Your task to perform on an android device: toggle location history Image 0: 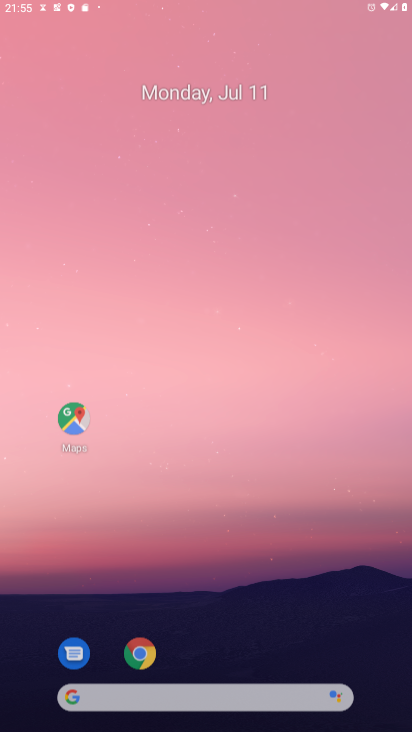
Step 0: drag from (289, 445) to (344, 10)
Your task to perform on an android device: toggle location history Image 1: 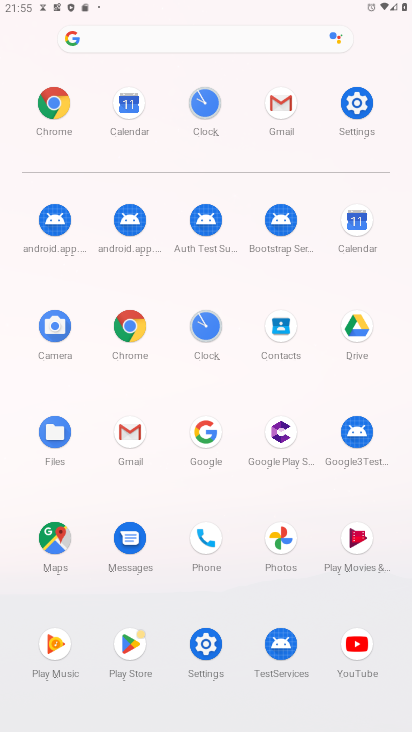
Step 1: click (355, 98)
Your task to perform on an android device: toggle location history Image 2: 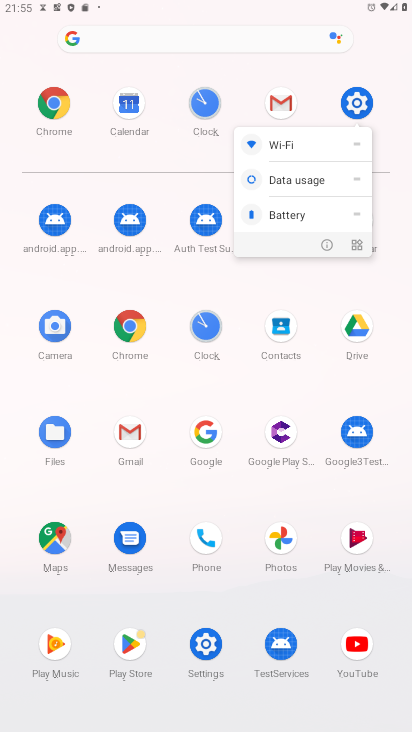
Step 2: click (324, 239)
Your task to perform on an android device: toggle location history Image 3: 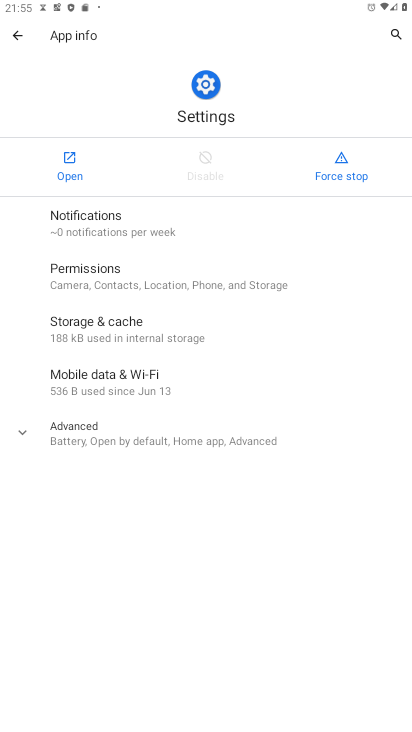
Step 3: click (76, 161)
Your task to perform on an android device: toggle location history Image 4: 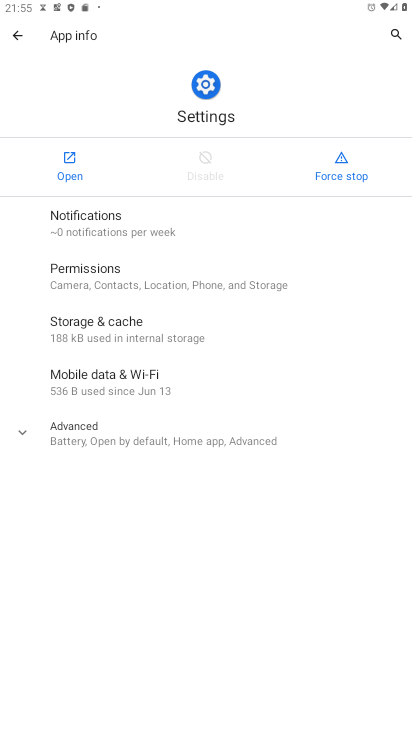
Step 4: click (76, 161)
Your task to perform on an android device: toggle location history Image 5: 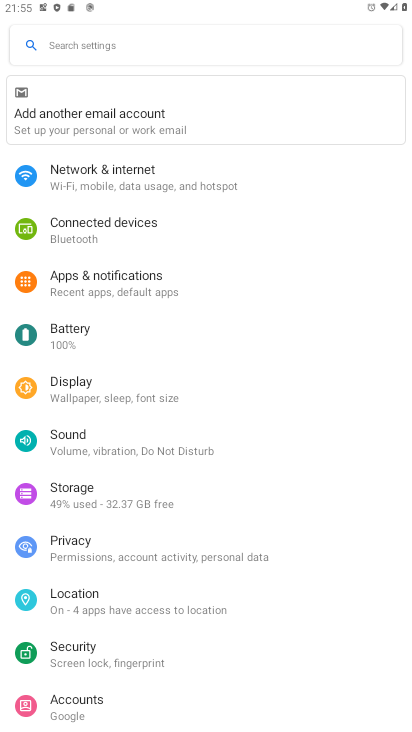
Step 5: click (128, 598)
Your task to perform on an android device: toggle location history Image 6: 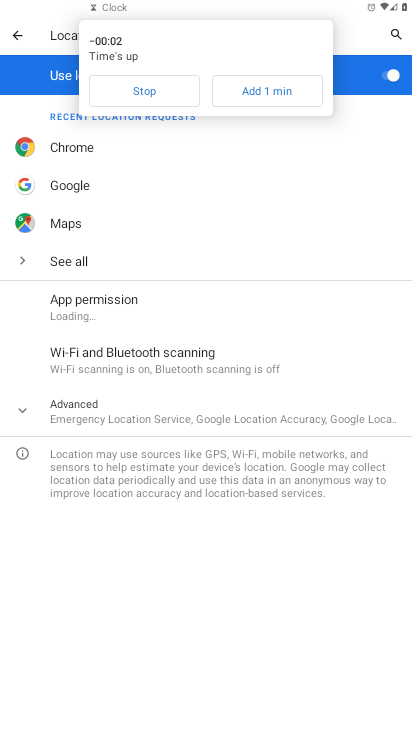
Step 6: click (152, 90)
Your task to perform on an android device: toggle location history Image 7: 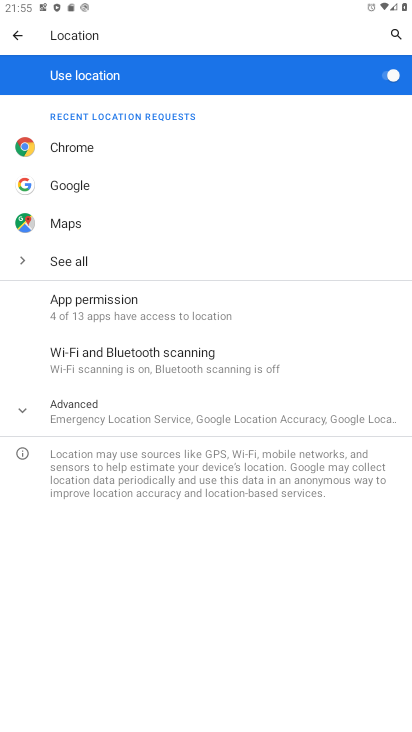
Step 7: click (132, 403)
Your task to perform on an android device: toggle location history Image 8: 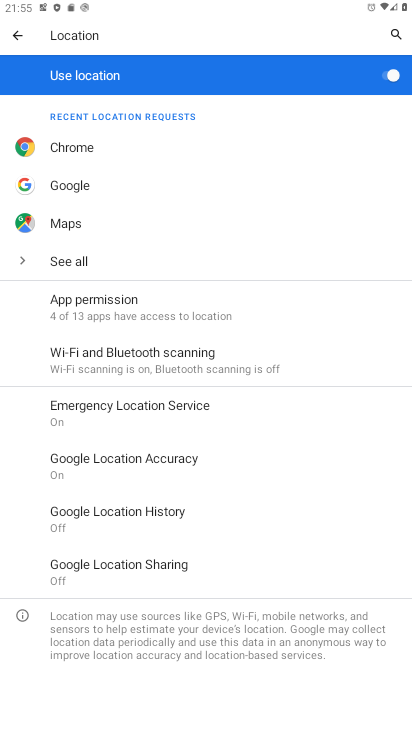
Step 8: click (129, 521)
Your task to perform on an android device: toggle location history Image 9: 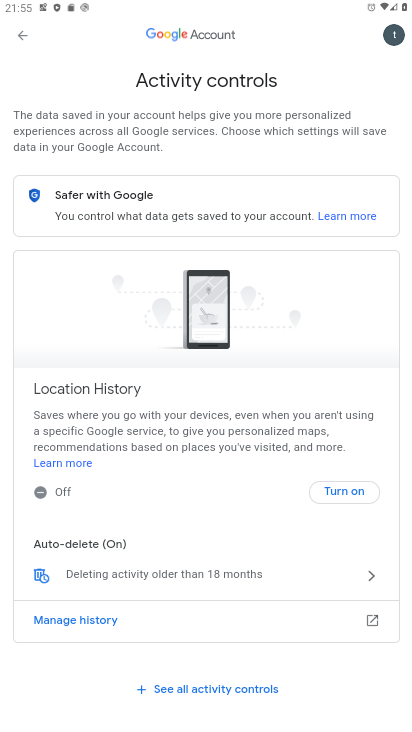
Step 9: click (355, 492)
Your task to perform on an android device: toggle location history Image 10: 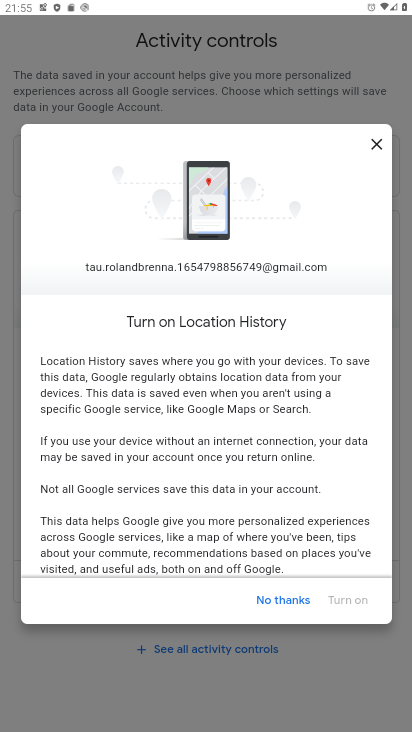
Step 10: drag from (213, 512) to (295, 163)
Your task to perform on an android device: toggle location history Image 11: 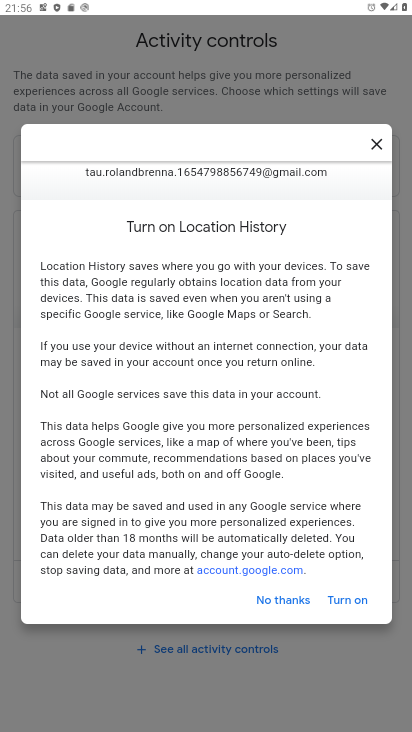
Step 11: click (344, 597)
Your task to perform on an android device: toggle location history Image 12: 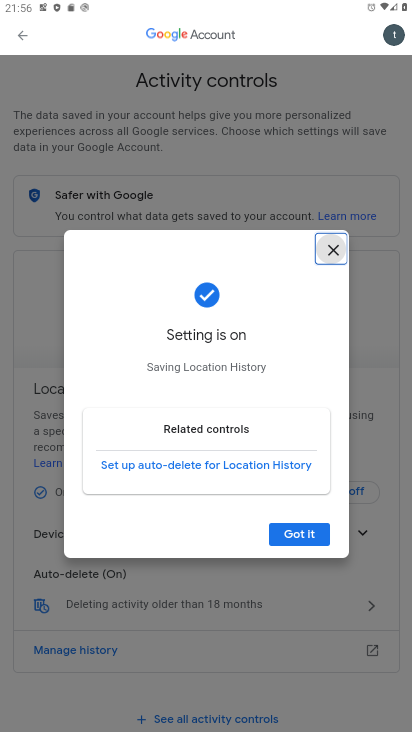
Step 12: click (300, 535)
Your task to perform on an android device: toggle location history Image 13: 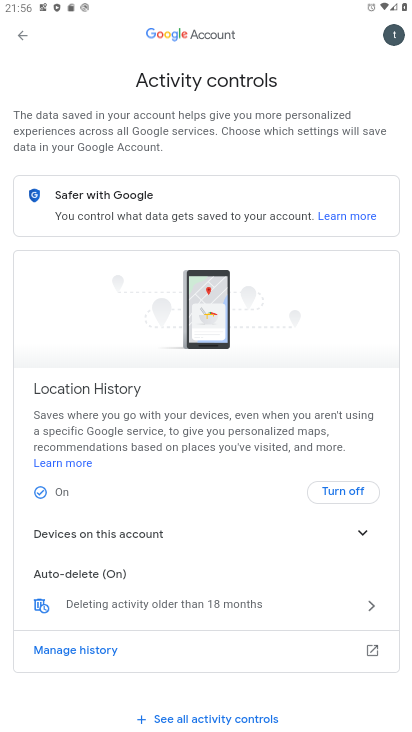
Step 13: drag from (178, 637) to (190, 251)
Your task to perform on an android device: toggle location history Image 14: 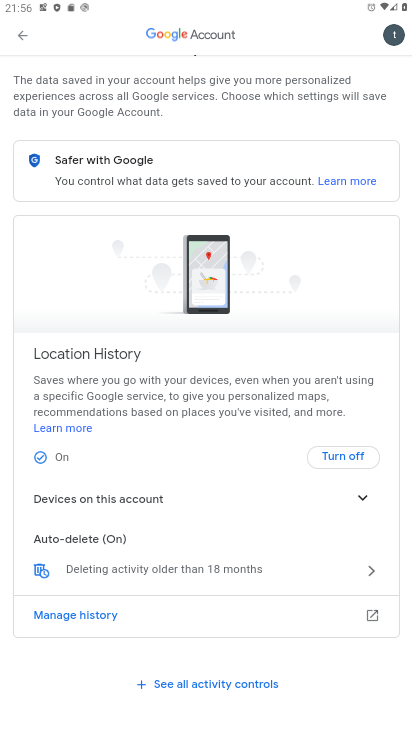
Step 14: drag from (217, 541) to (221, 372)
Your task to perform on an android device: toggle location history Image 15: 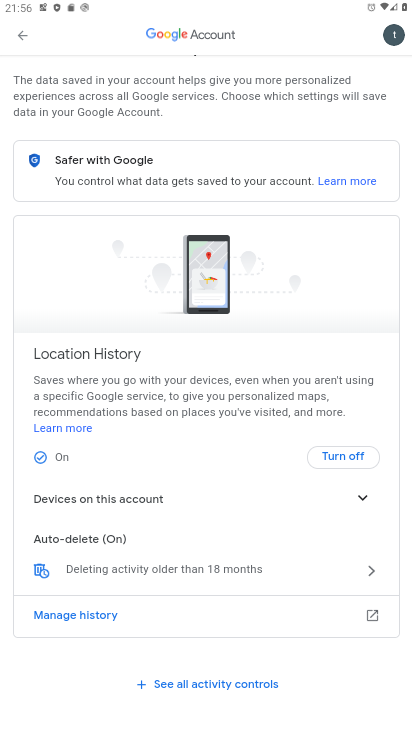
Step 15: drag from (221, 372) to (300, 718)
Your task to perform on an android device: toggle location history Image 16: 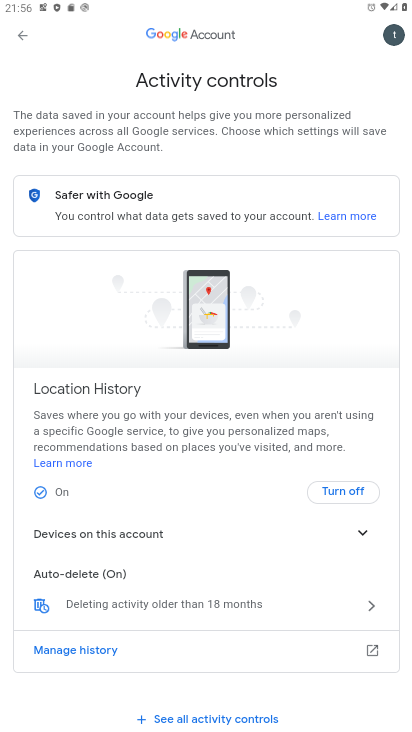
Step 16: drag from (250, 599) to (236, 500)
Your task to perform on an android device: toggle location history Image 17: 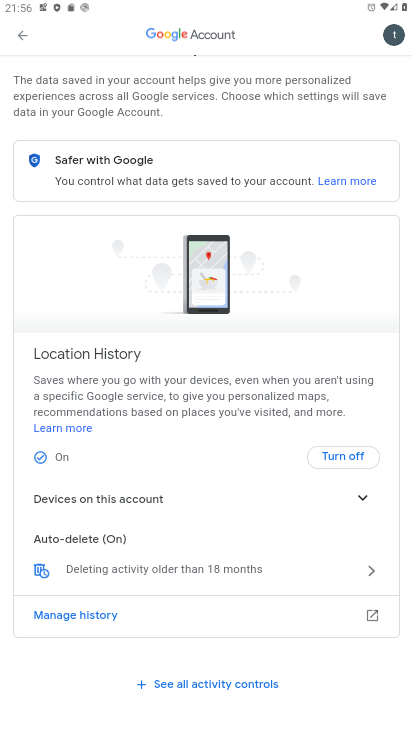
Step 17: drag from (113, 144) to (313, 698)
Your task to perform on an android device: toggle location history Image 18: 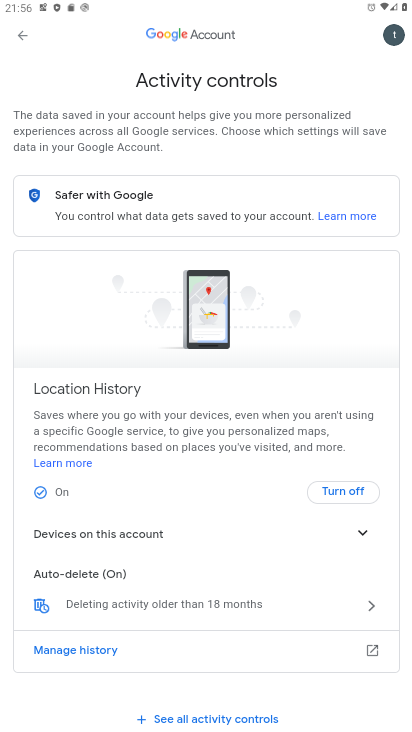
Step 18: click (402, 31)
Your task to perform on an android device: toggle location history Image 19: 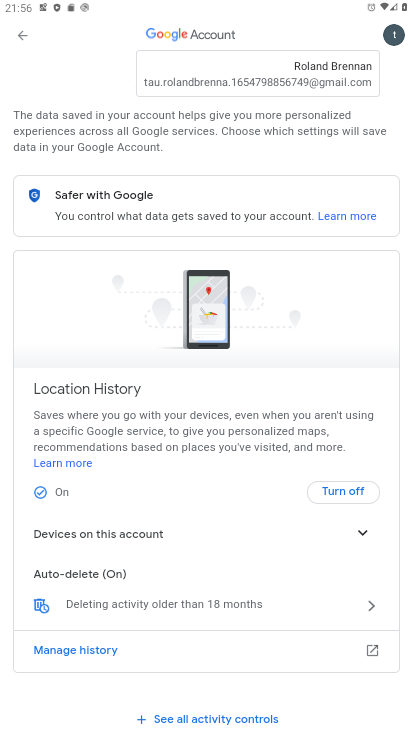
Step 19: click (328, 192)
Your task to perform on an android device: toggle location history Image 20: 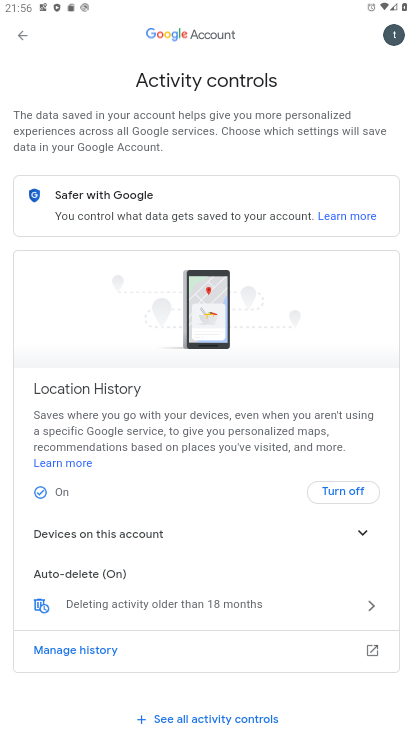
Step 20: click (274, 146)
Your task to perform on an android device: toggle location history Image 21: 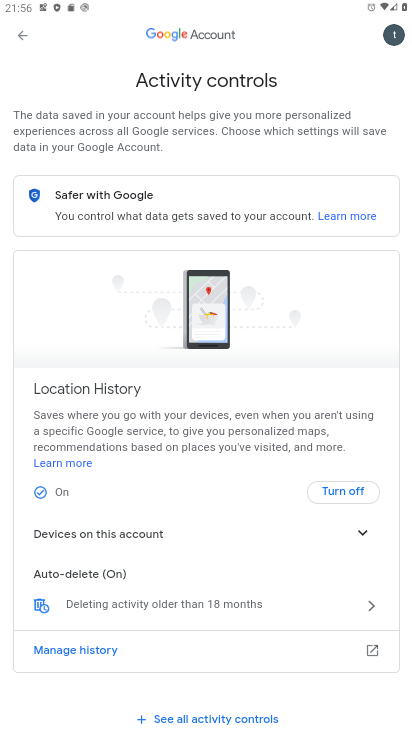
Step 21: task complete